Your task to perform on an android device: Go to ESPN.com Image 0: 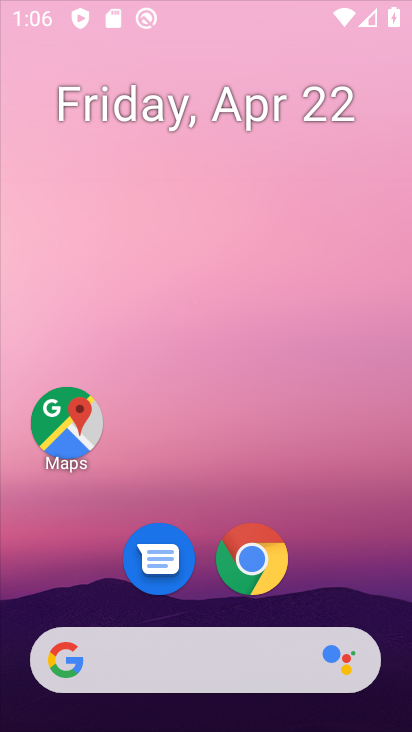
Step 0: click (222, 20)
Your task to perform on an android device: Go to ESPN.com Image 1: 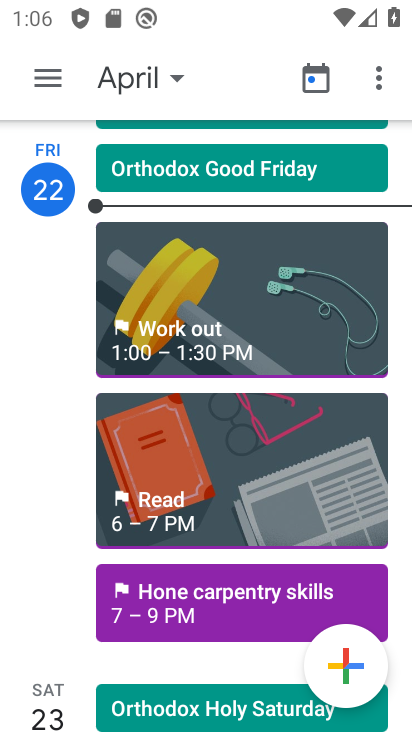
Step 1: press home button
Your task to perform on an android device: Go to ESPN.com Image 2: 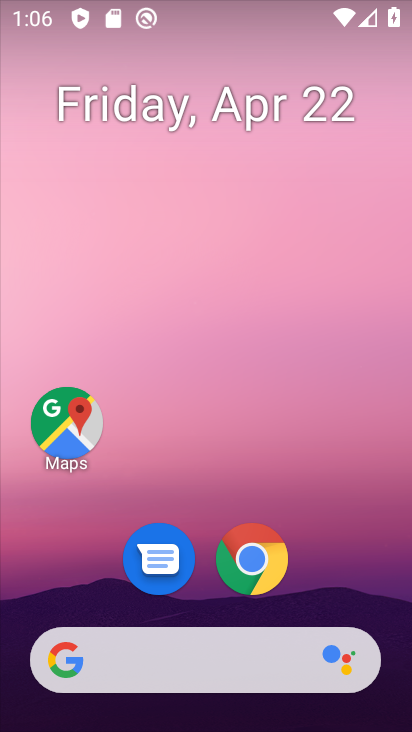
Step 2: drag from (351, 594) to (277, 57)
Your task to perform on an android device: Go to ESPN.com Image 3: 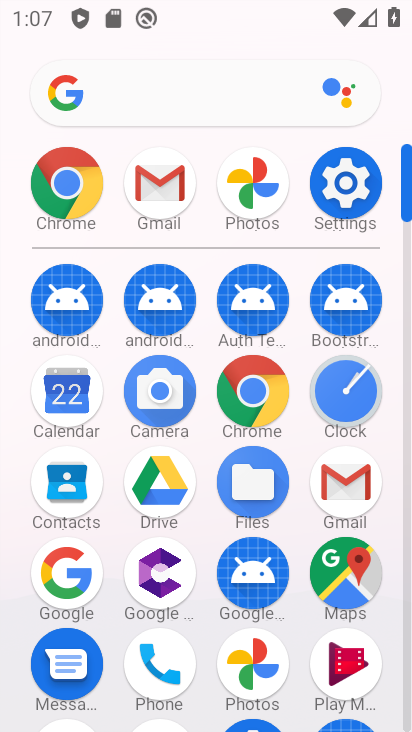
Step 3: click (257, 378)
Your task to perform on an android device: Go to ESPN.com Image 4: 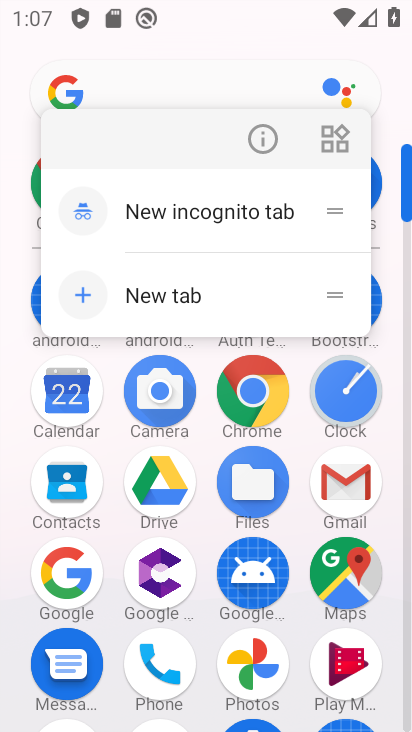
Step 4: click (257, 378)
Your task to perform on an android device: Go to ESPN.com Image 5: 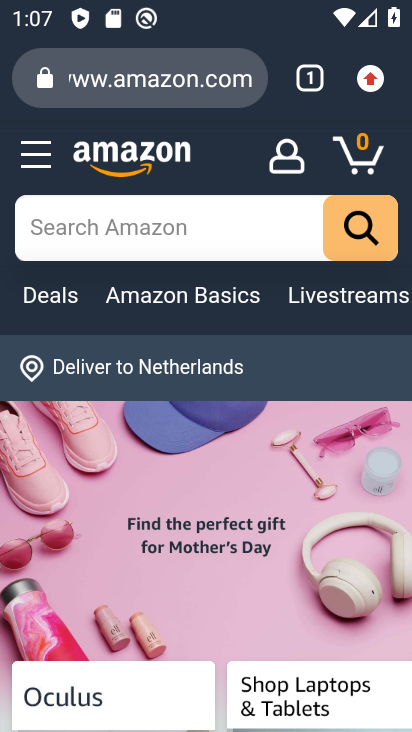
Step 5: press back button
Your task to perform on an android device: Go to ESPN.com Image 6: 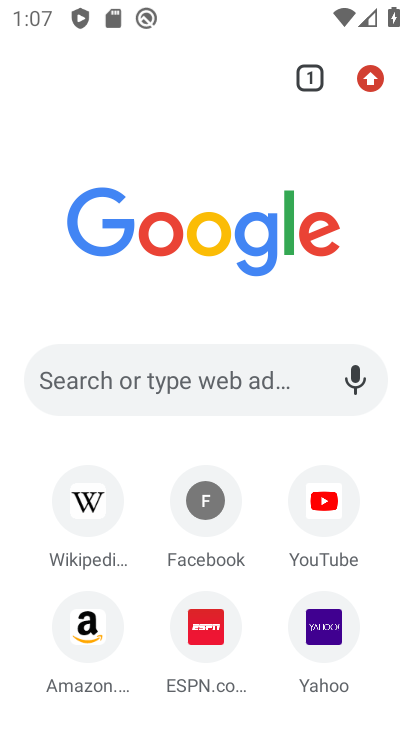
Step 6: click (198, 642)
Your task to perform on an android device: Go to ESPN.com Image 7: 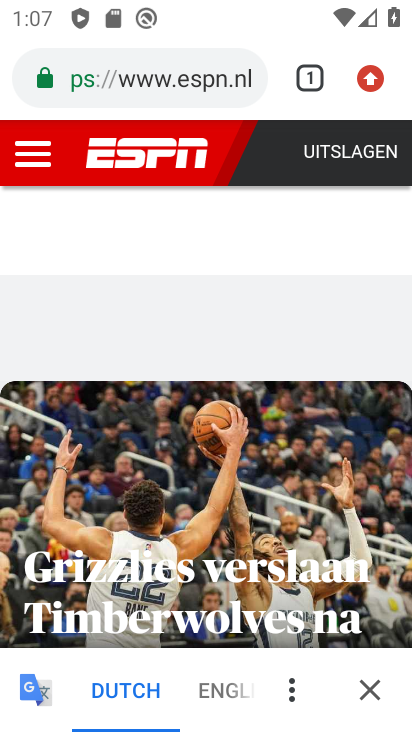
Step 7: task complete